Your task to perform on an android device: Show me popular games on the Play Store Image 0: 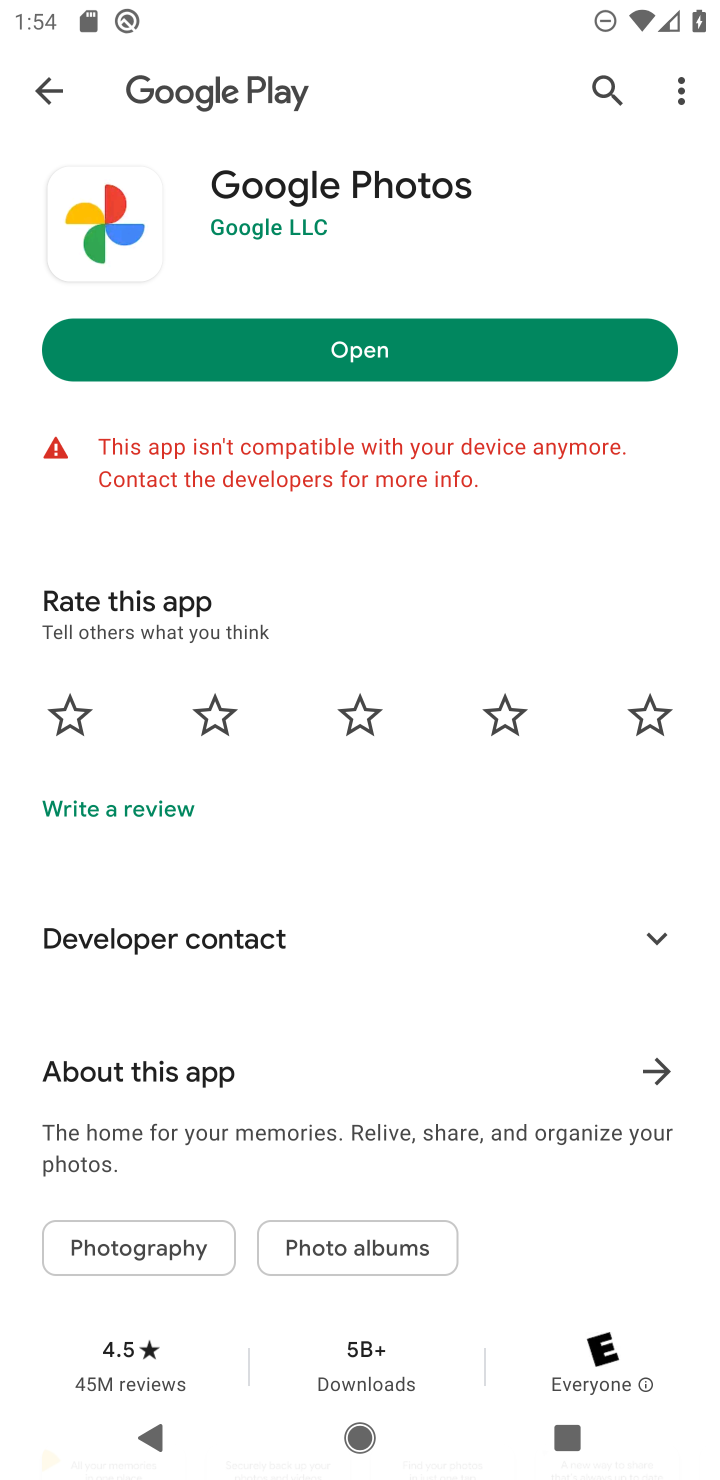
Step 0: press home button
Your task to perform on an android device: Show me popular games on the Play Store Image 1: 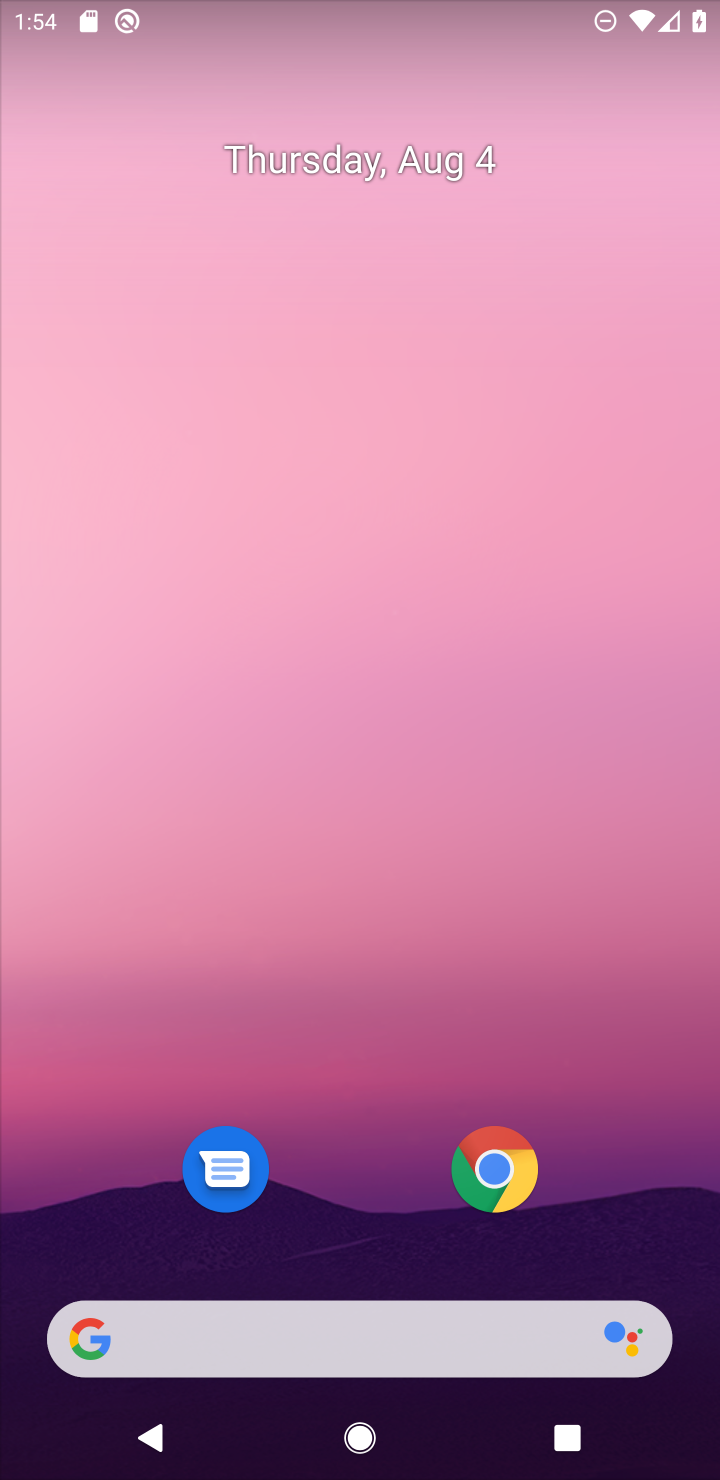
Step 1: drag from (379, 1237) to (403, 82)
Your task to perform on an android device: Show me popular games on the Play Store Image 2: 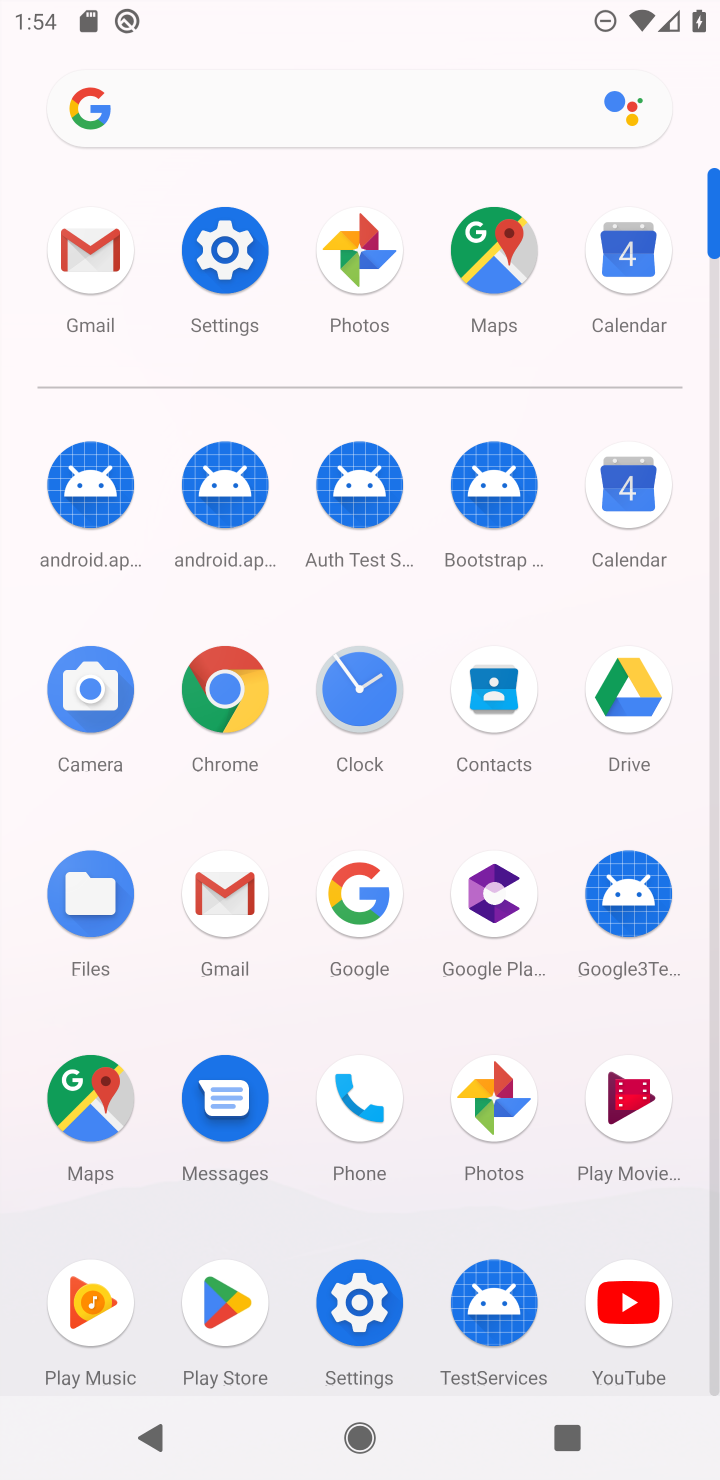
Step 2: click (228, 1302)
Your task to perform on an android device: Show me popular games on the Play Store Image 3: 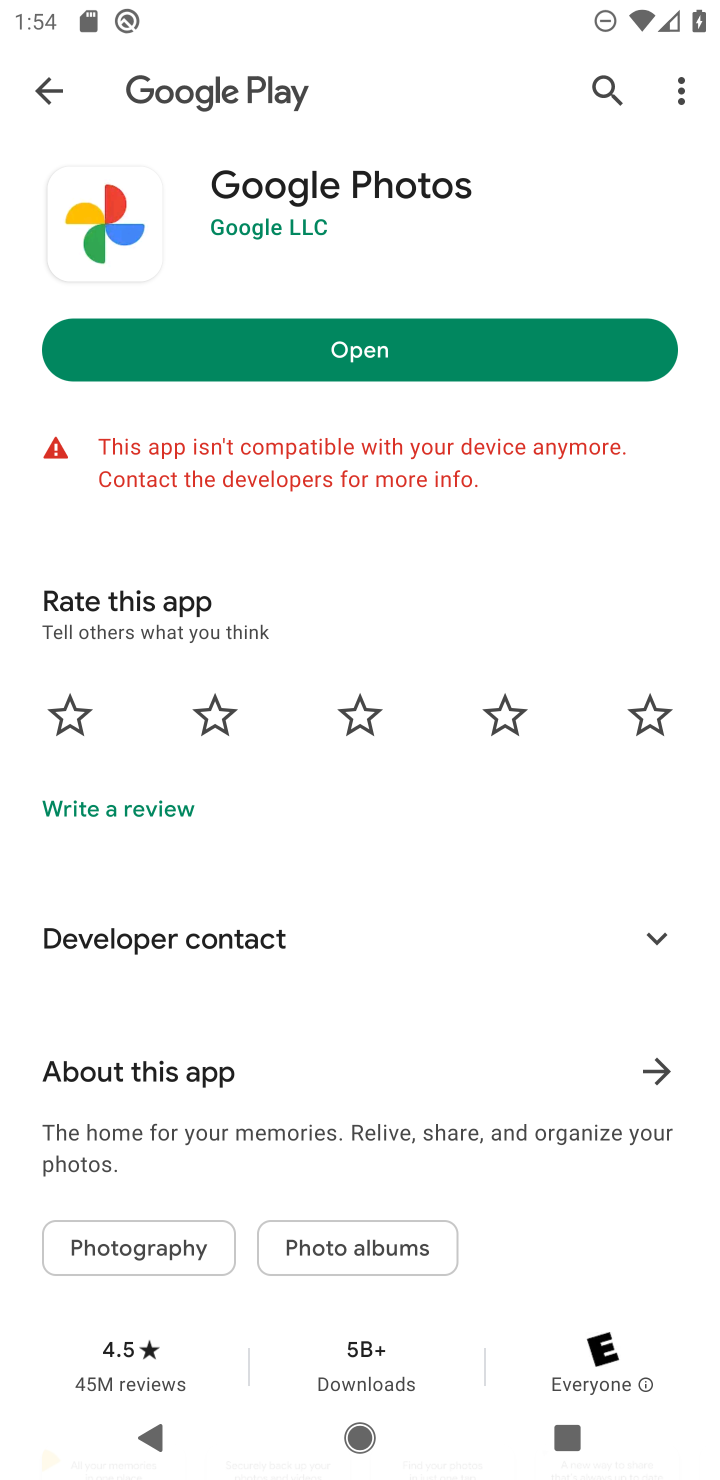
Step 3: click (57, 94)
Your task to perform on an android device: Show me popular games on the Play Store Image 4: 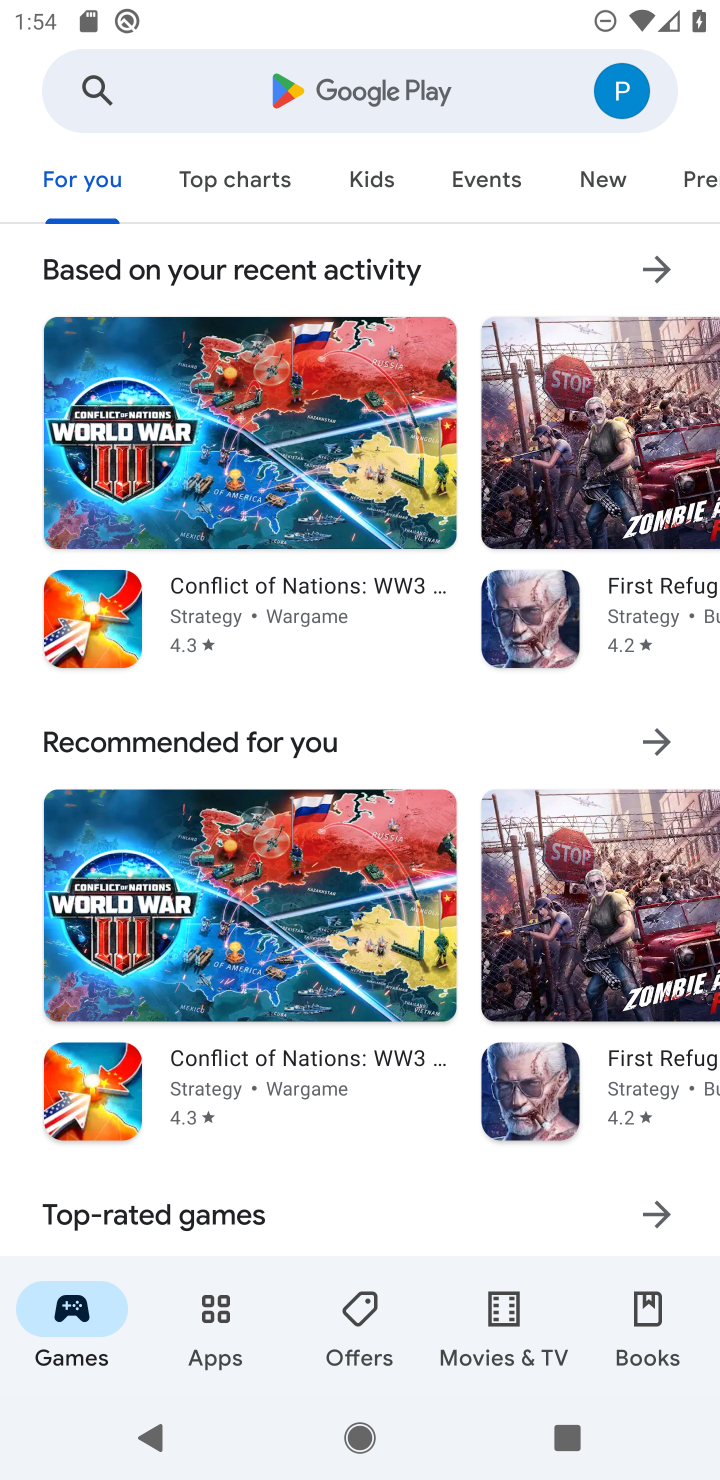
Step 4: click (71, 1331)
Your task to perform on an android device: Show me popular games on the Play Store Image 5: 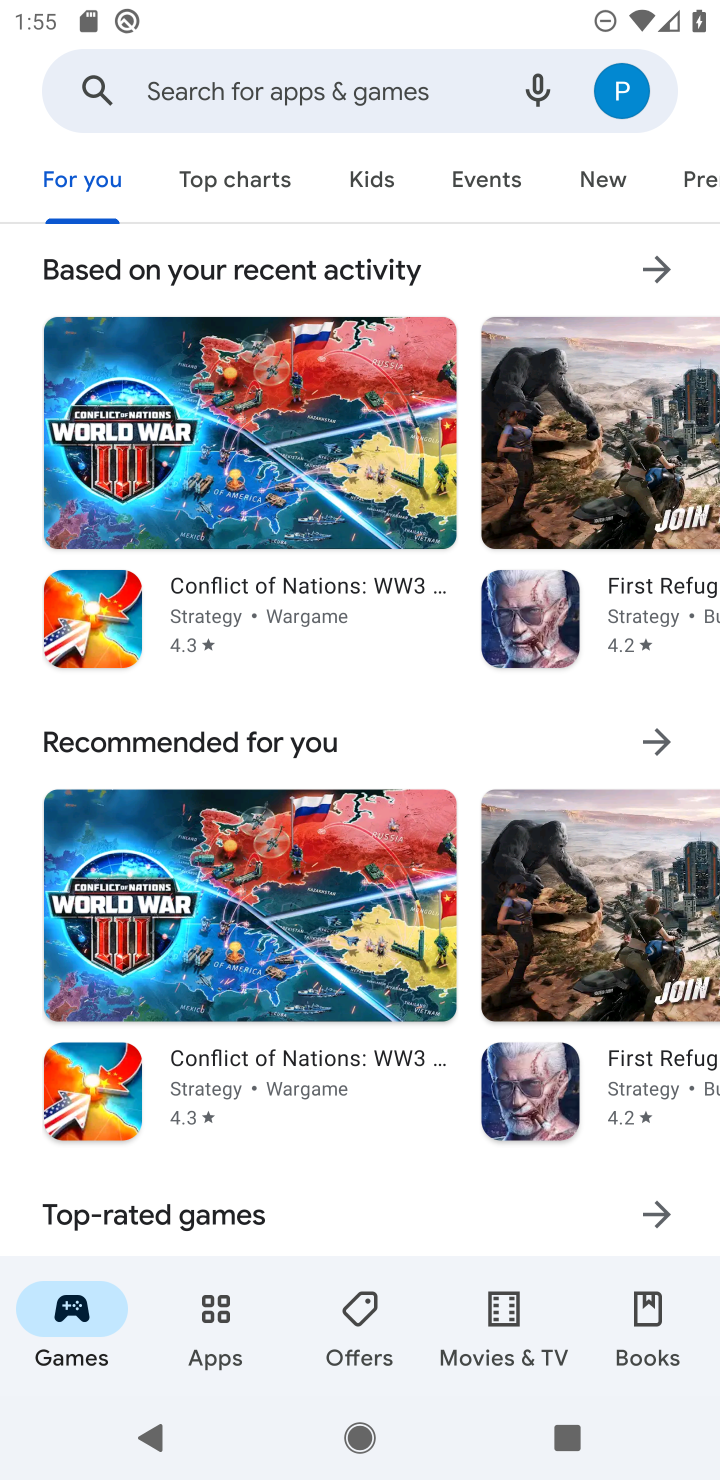
Step 5: drag from (350, 741) to (366, 1179)
Your task to perform on an android device: Show me popular games on the Play Store Image 6: 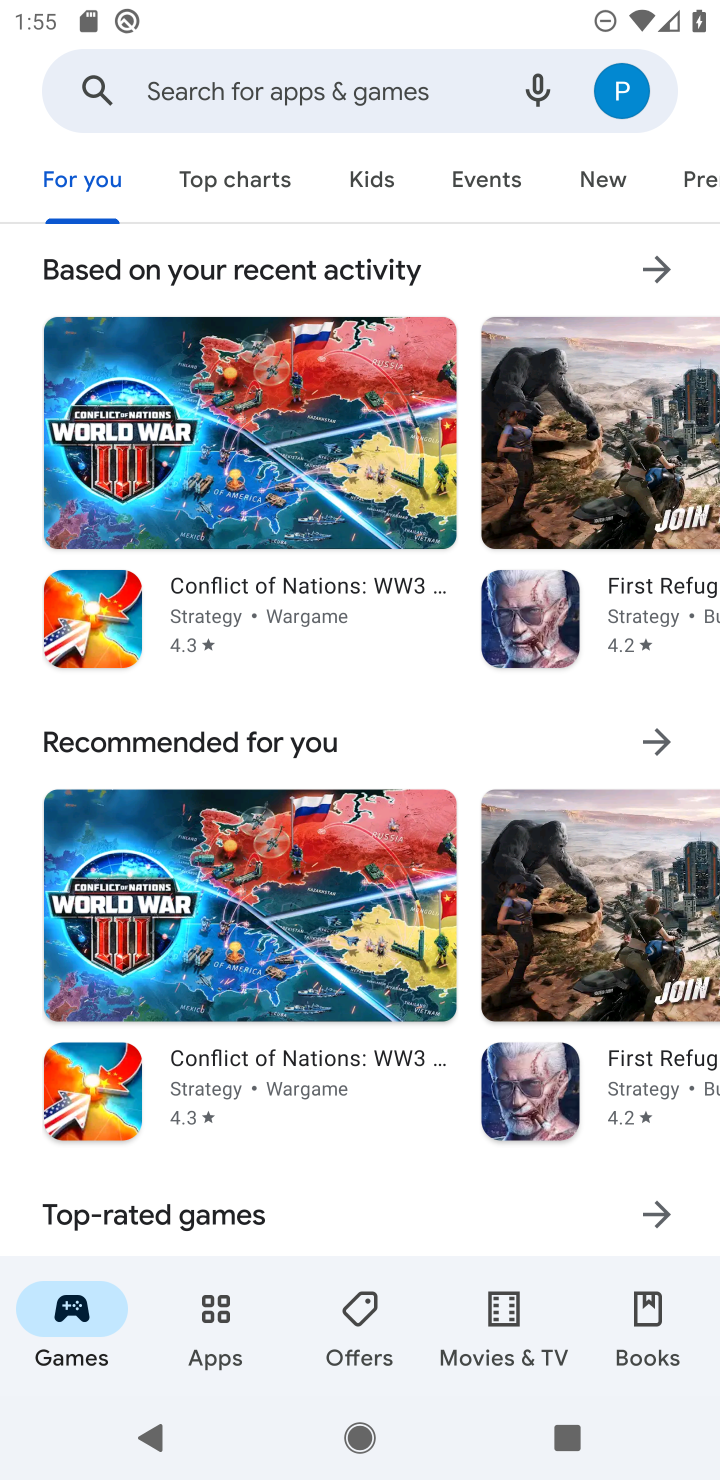
Step 6: drag from (308, 845) to (331, 321)
Your task to perform on an android device: Show me popular games on the Play Store Image 7: 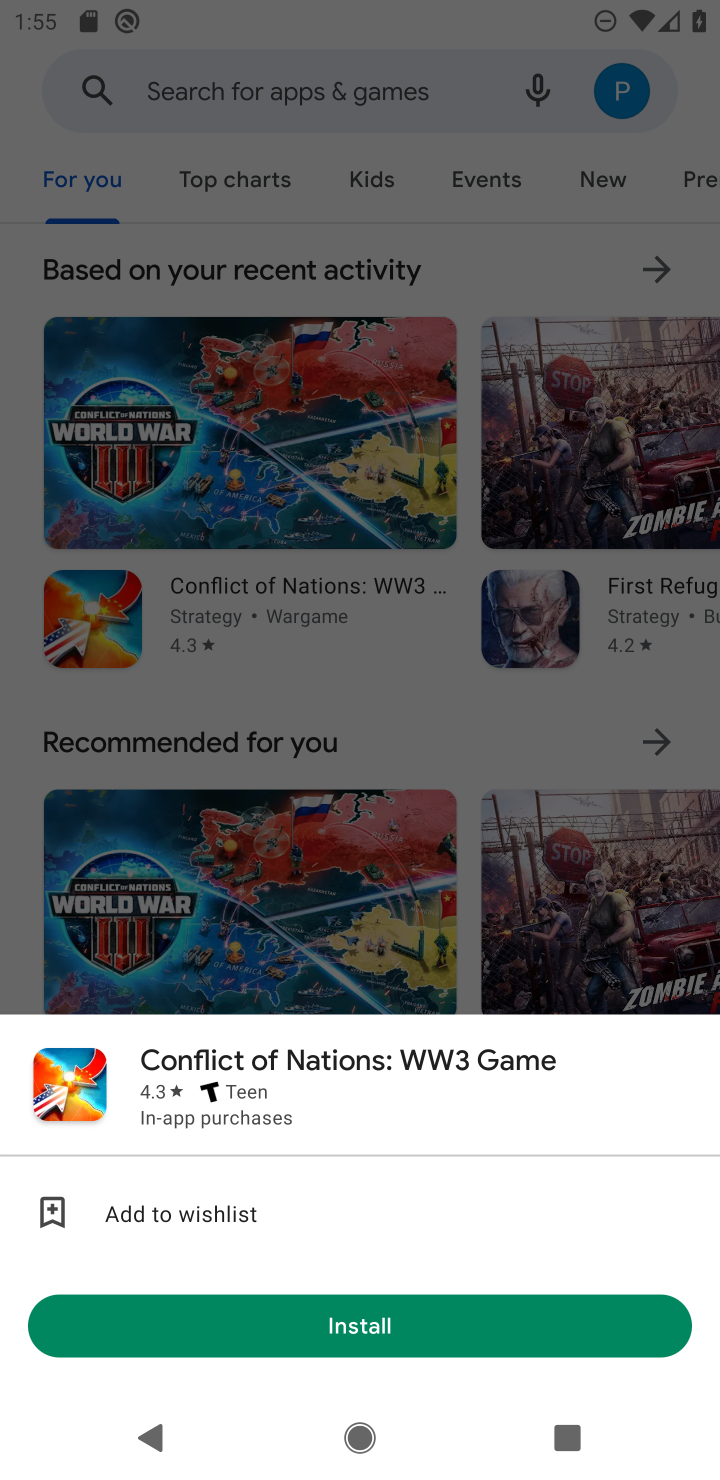
Step 7: drag from (377, 711) to (377, 222)
Your task to perform on an android device: Show me popular games on the Play Store Image 8: 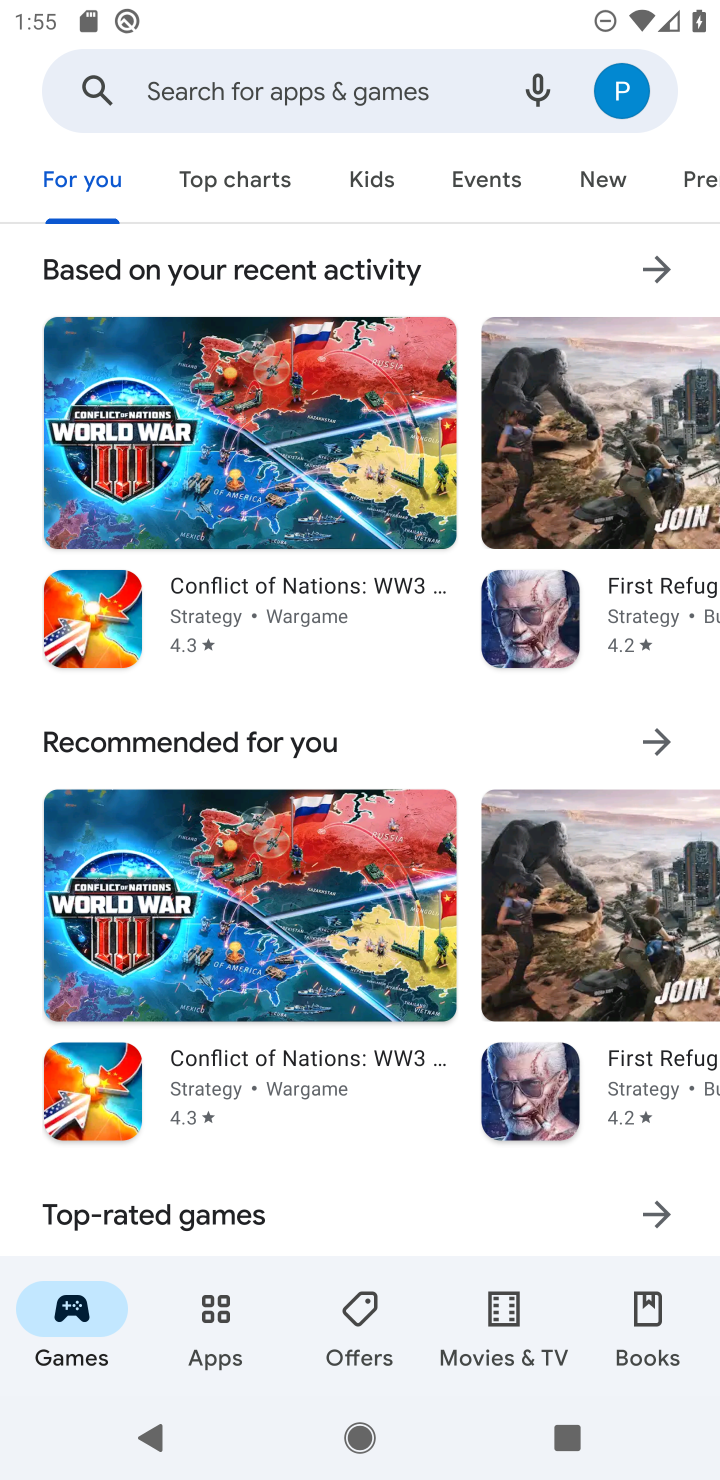
Step 8: drag from (363, 967) to (363, 309)
Your task to perform on an android device: Show me popular games on the Play Store Image 9: 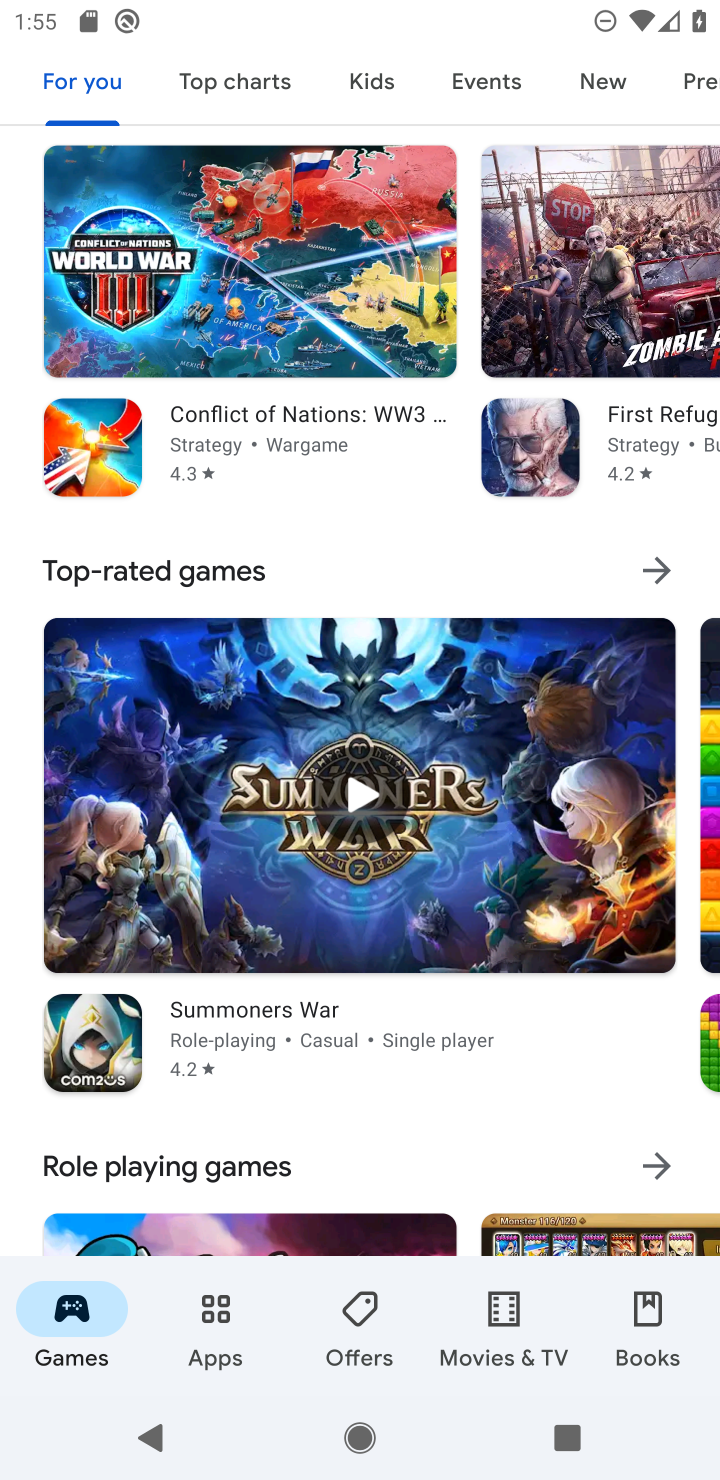
Step 9: drag from (345, 993) to (312, 449)
Your task to perform on an android device: Show me popular games on the Play Store Image 10: 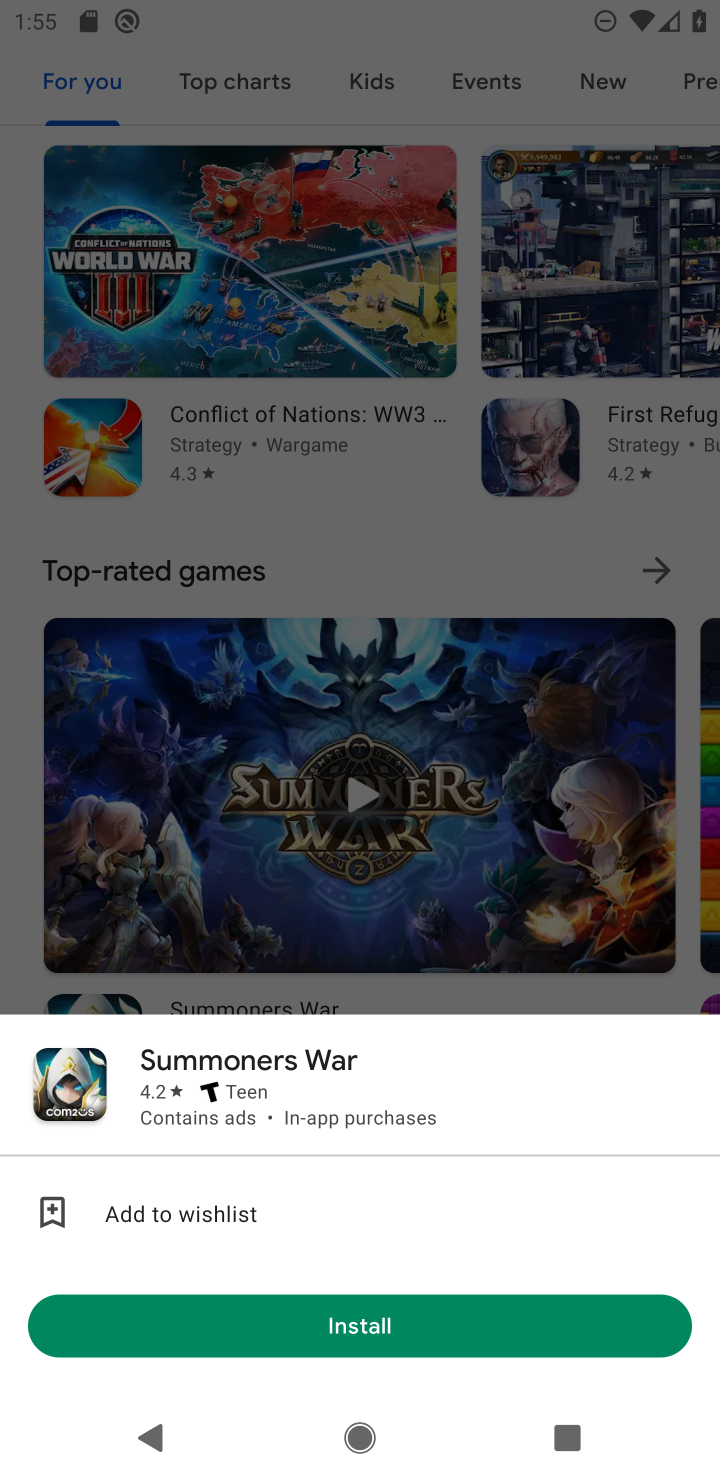
Step 10: drag from (550, 873) to (554, 266)
Your task to perform on an android device: Show me popular games on the Play Store Image 11: 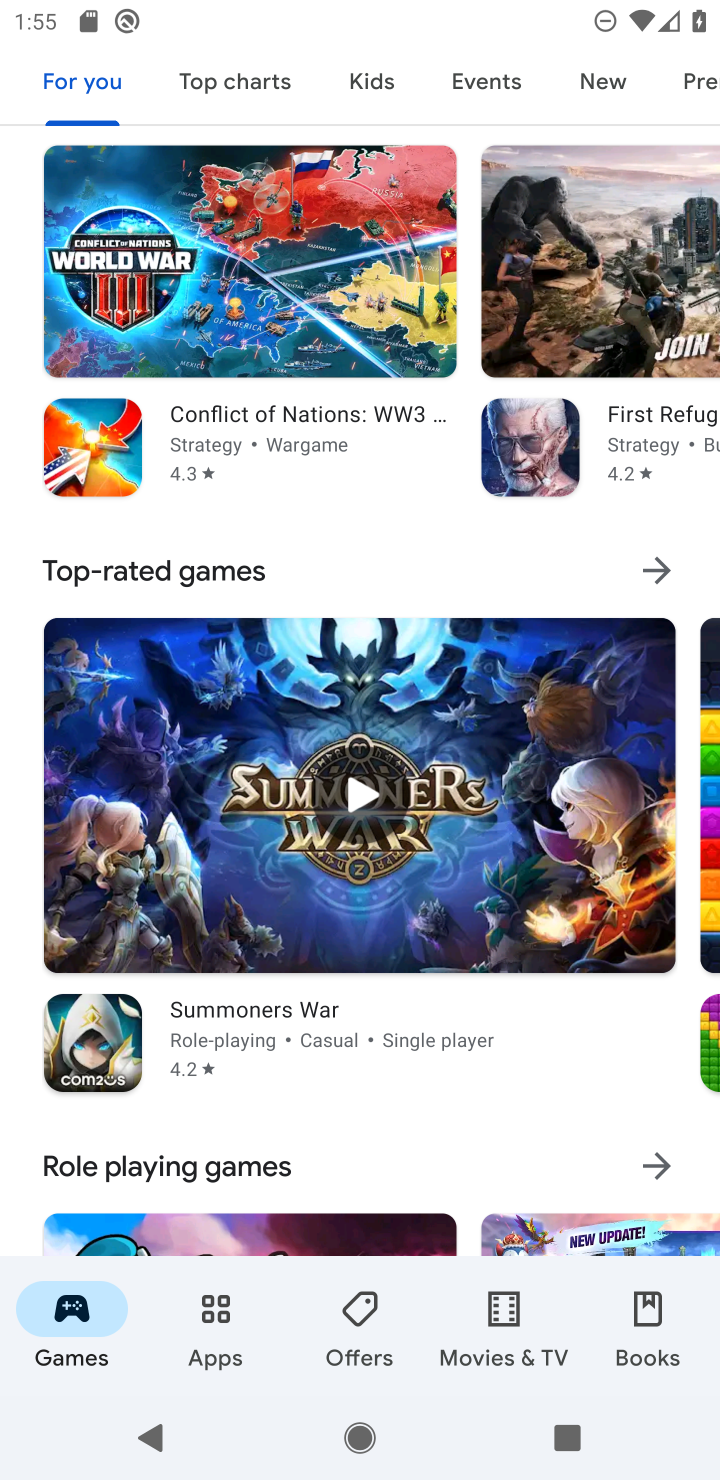
Step 11: drag from (482, 867) to (512, 320)
Your task to perform on an android device: Show me popular games on the Play Store Image 12: 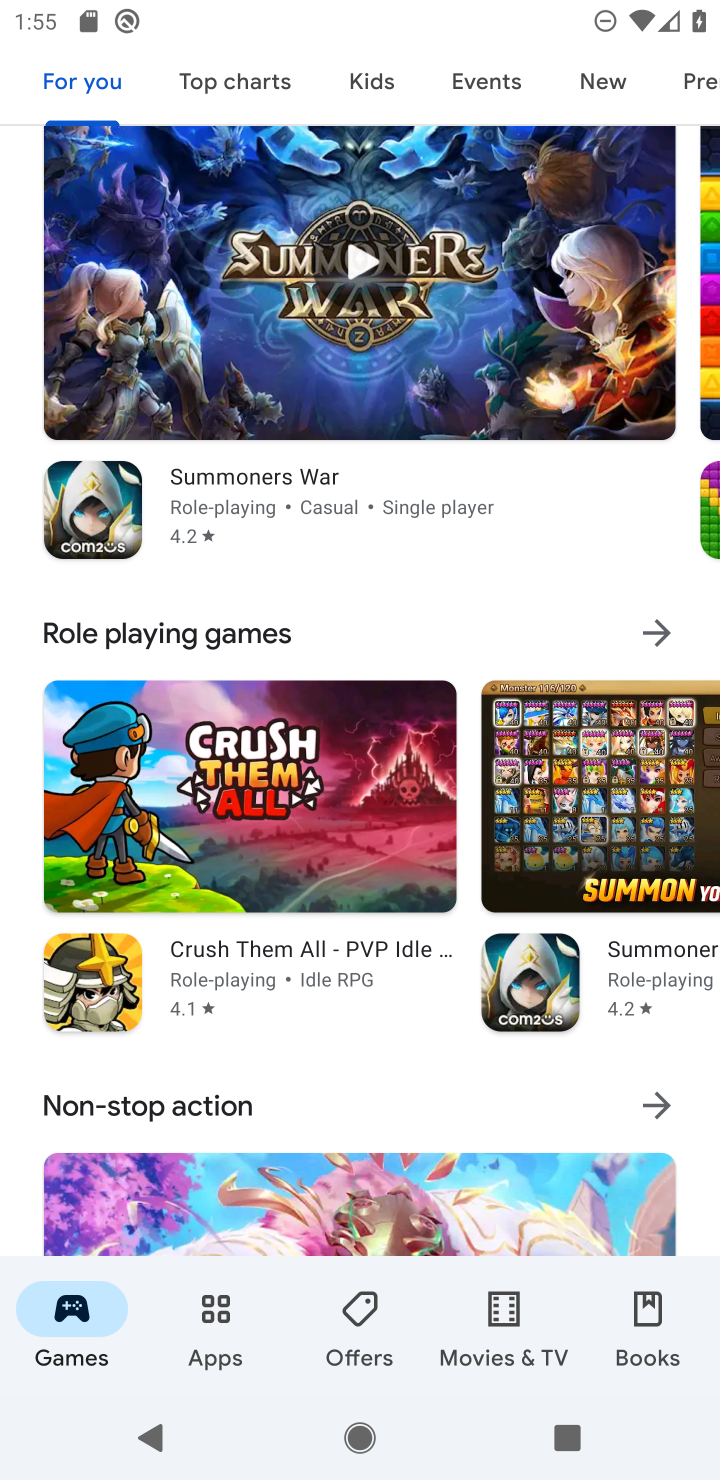
Step 12: drag from (352, 977) to (384, 301)
Your task to perform on an android device: Show me popular games on the Play Store Image 13: 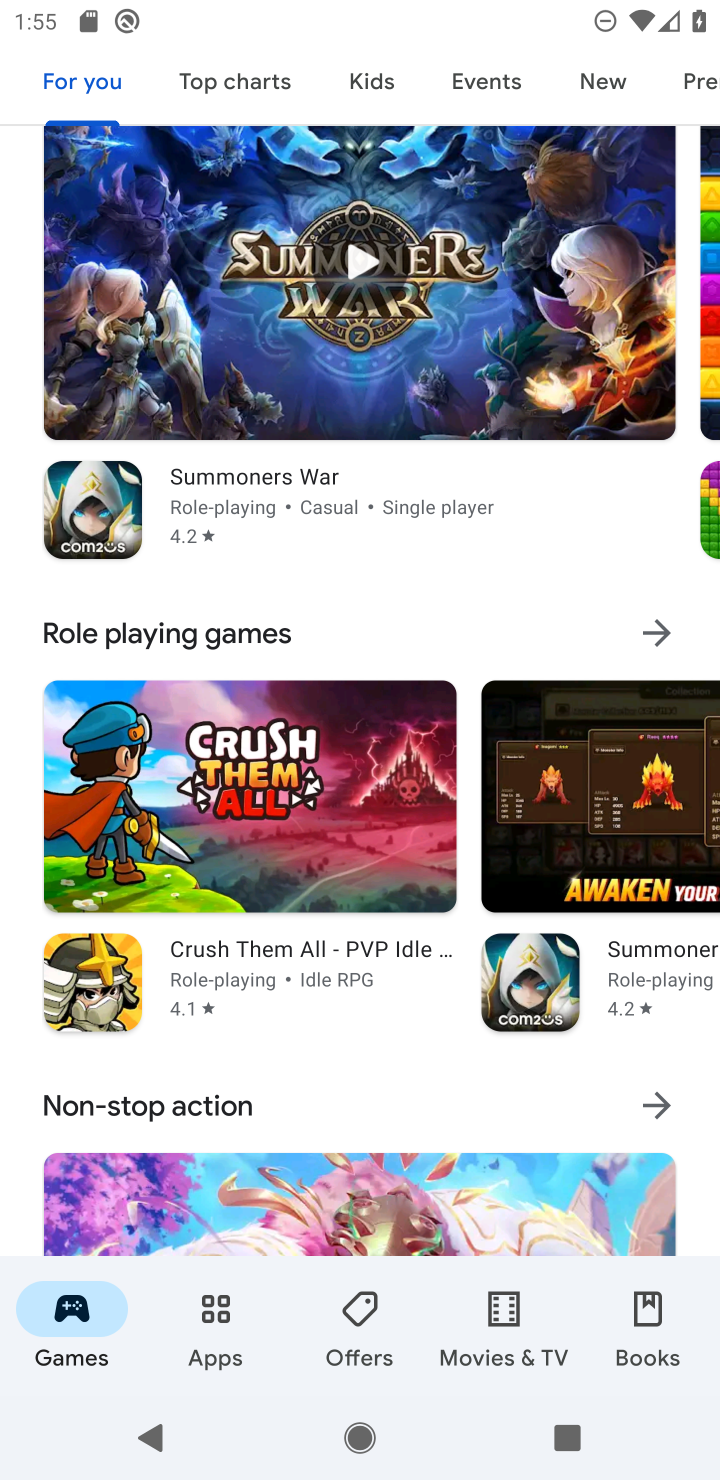
Step 13: drag from (372, 1109) to (419, 437)
Your task to perform on an android device: Show me popular games on the Play Store Image 14: 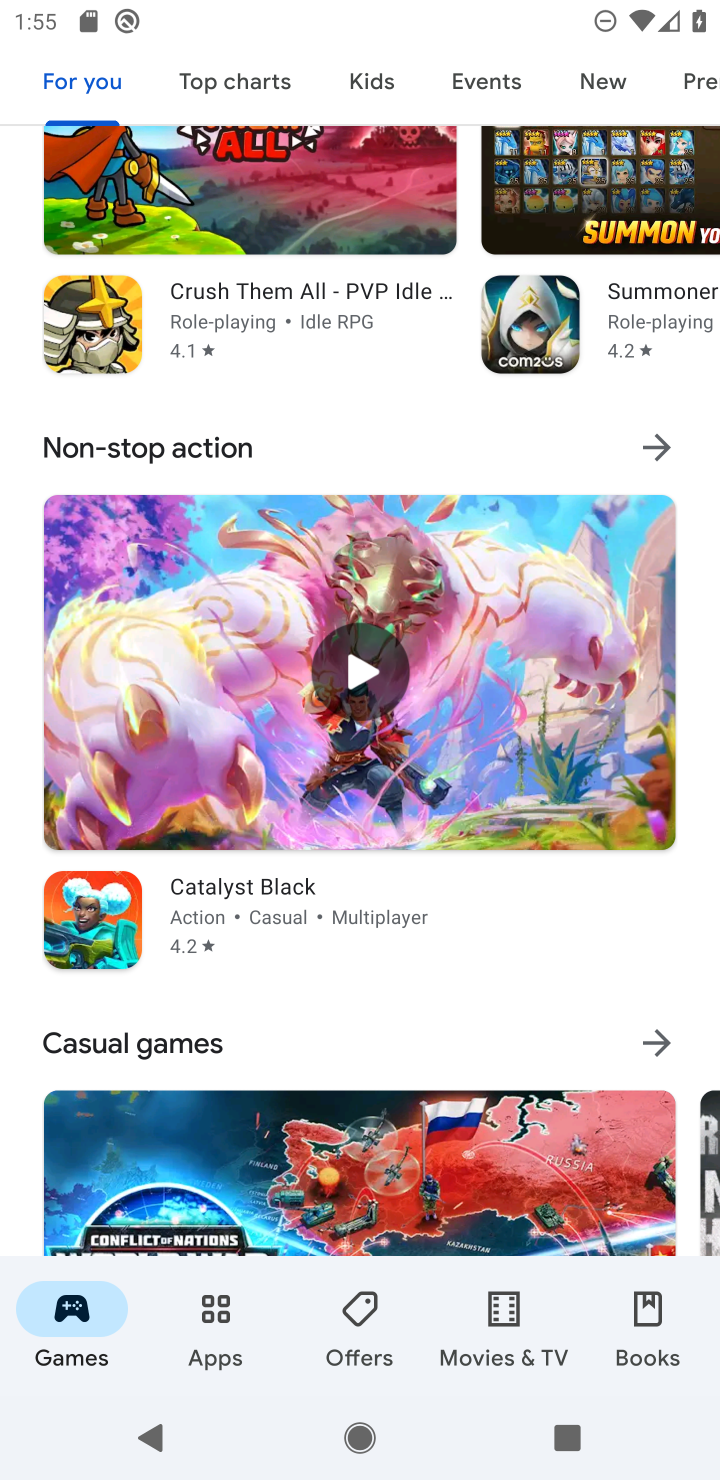
Step 14: drag from (434, 848) to (417, 264)
Your task to perform on an android device: Show me popular games on the Play Store Image 15: 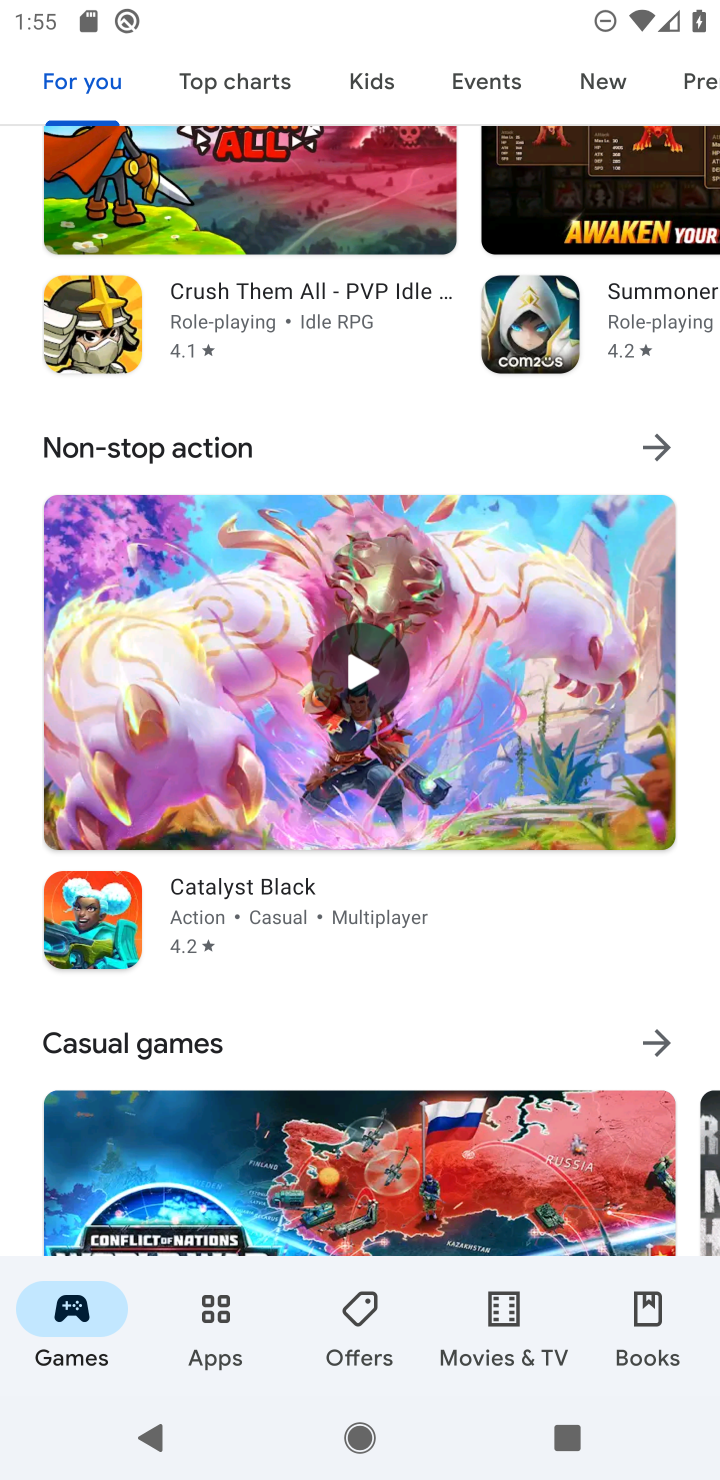
Step 15: drag from (372, 1059) to (399, 312)
Your task to perform on an android device: Show me popular games on the Play Store Image 16: 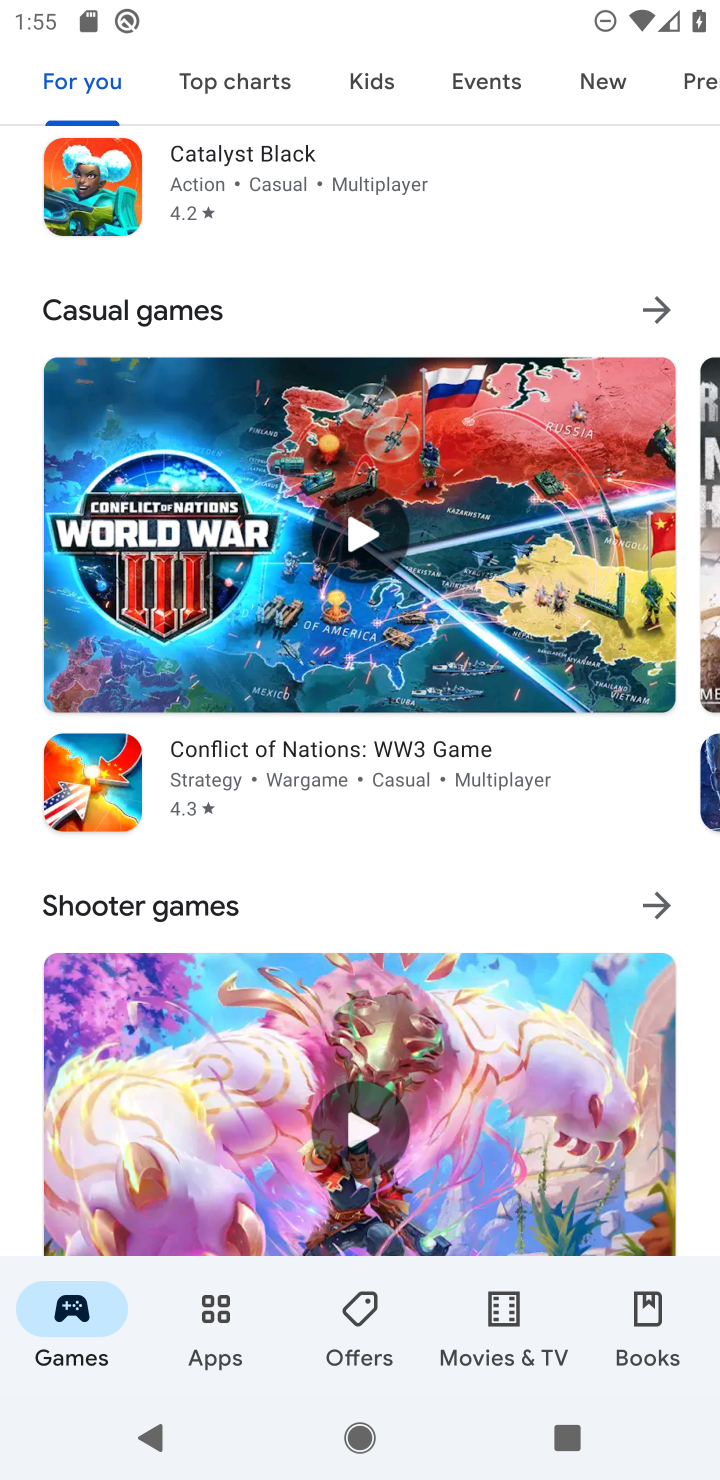
Step 16: drag from (396, 795) to (400, 135)
Your task to perform on an android device: Show me popular games on the Play Store Image 17: 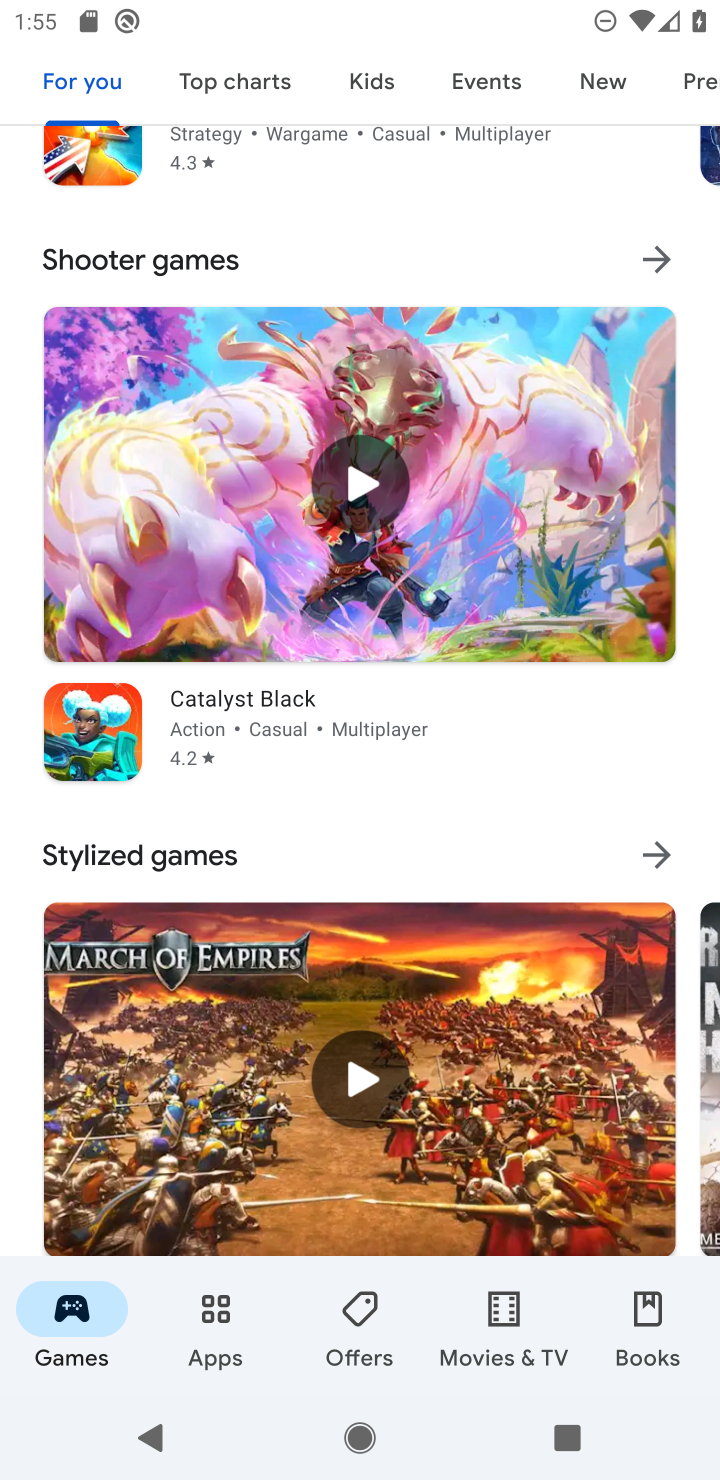
Step 17: drag from (489, 1049) to (476, 287)
Your task to perform on an android device: Show me popular games on the Play Store Image 18: 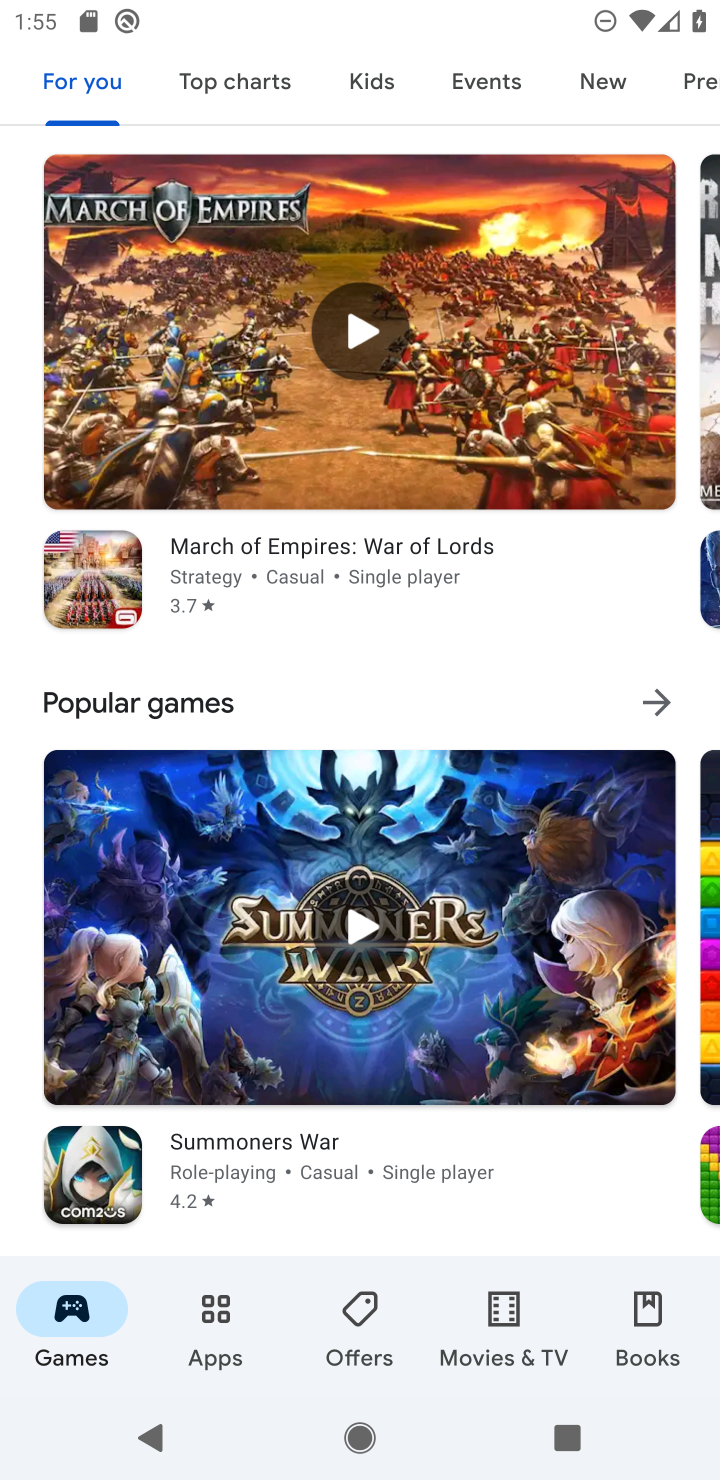
Step 18: click (645, 702)
Your task to perform on an android device: Show me popular games on the Play Store Image 19: 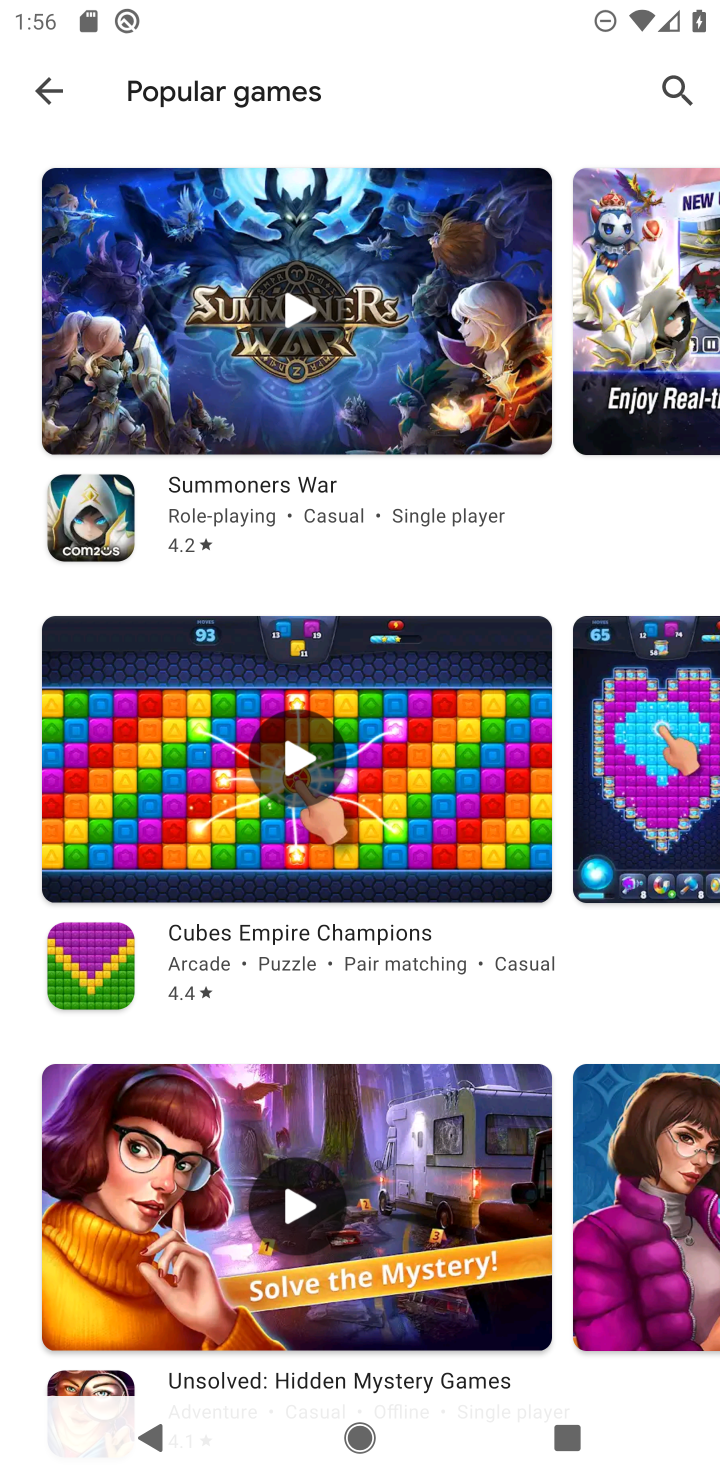
Step 19: task complete